Your task to perform on an android device: move an email to a new category in the gmail app Image 0: 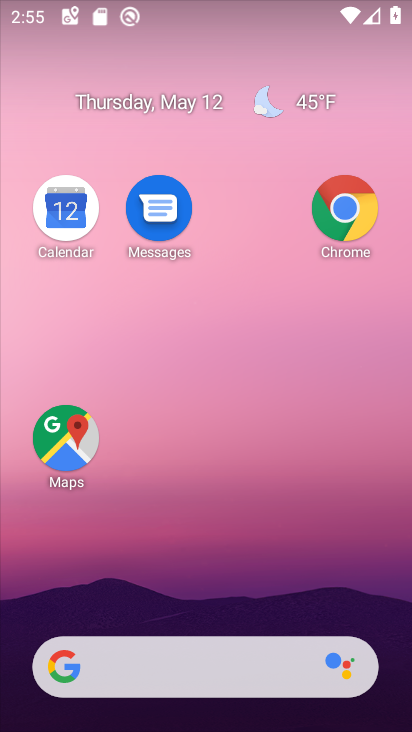
Step 0: drag from (150, 612) to (260, 217)
Your task to perform on an android device: move an email to a new category in the gmail app Image 1: 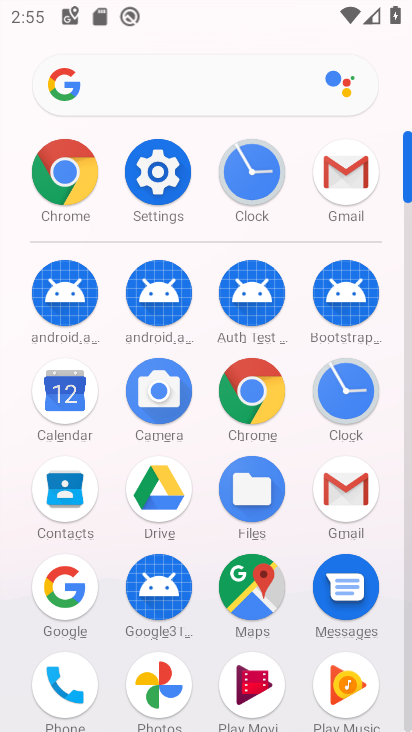
Step 1: click (346, 490)
Your task to perform on an android device: move an email to a new category in the gmail app Image 2: 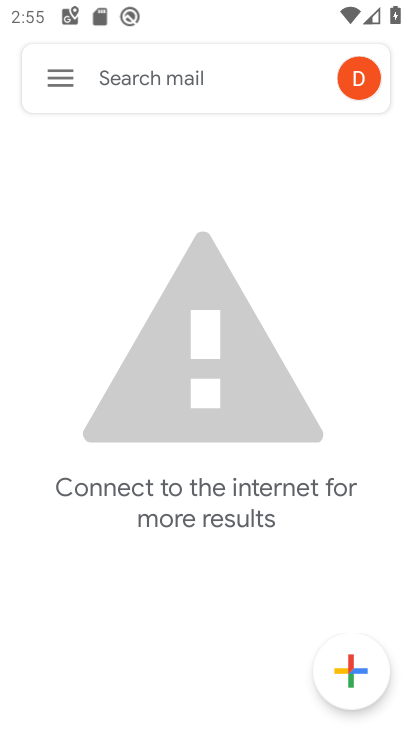
Step 2: drag from (198, 538) to (263, 310)
Your task to perform on an android device: move an email to a new category in the gmail app Image 3: 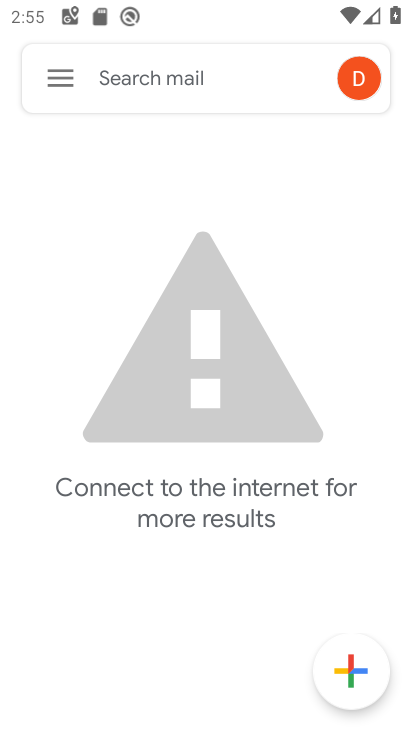
Step 3: click (74, 69)
Your task to perform on an android device: move an email to a new category in the gmail app Image 4: 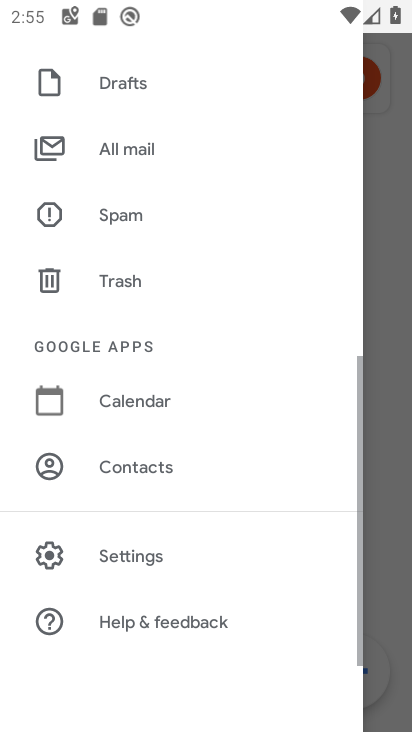
Step 4: click (135, 560)
Your task to perform on an android device: move an email to a new category in the gmail app Image 5: 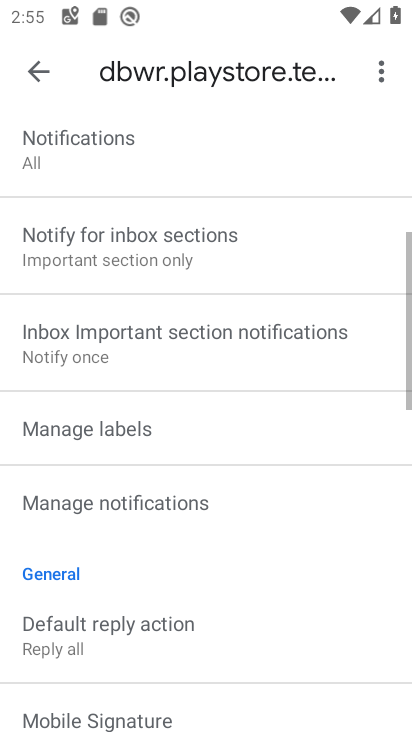
Step 5: drag from (123, 543) to (213, 194)
Your task to perform on an android device: move an email to a new category in the gmail app Image 6: 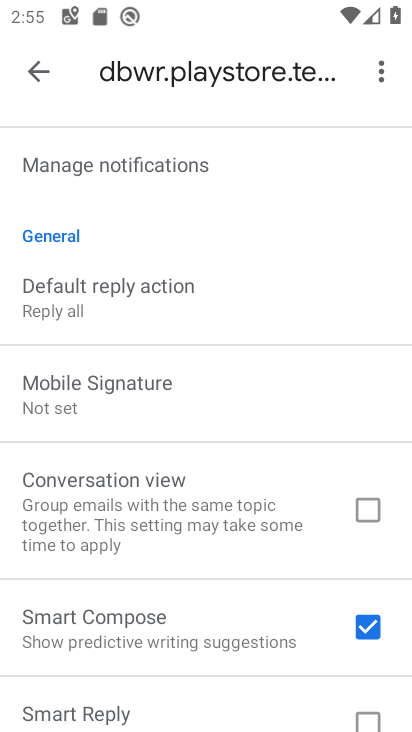
Step 6: drag from (211, 210) to (276, 471)
Your task to perform on an android device: move an email to a new category in the gmail app Image 7: 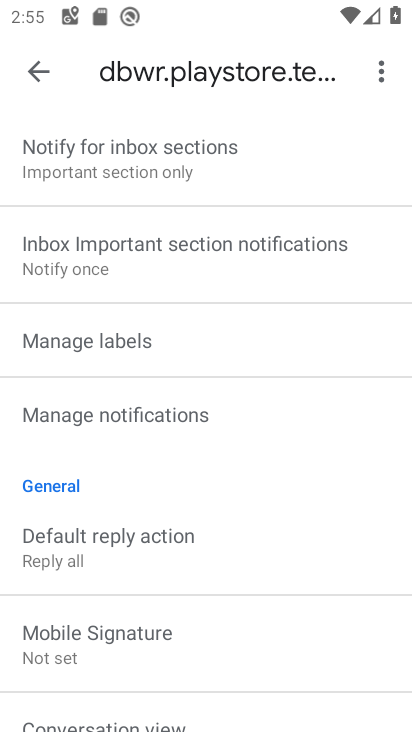
Step 7: click (41, 71)
Your task to perform on an android device: move an email to a new category in the gmail app Image 8: 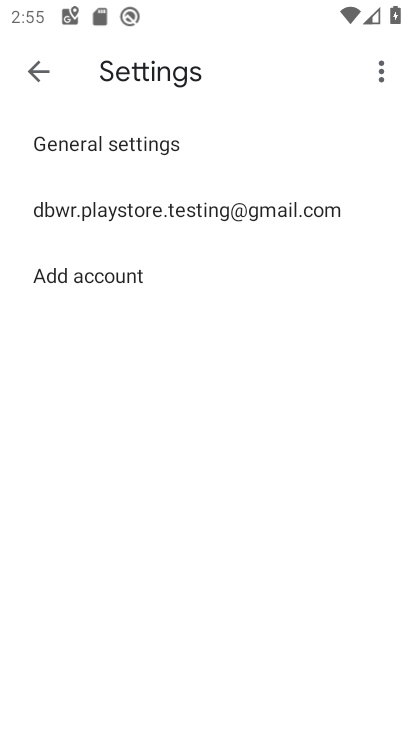
Step 8: click (67, 65)
Your task to perform on an android device: move an email to a new category in the gmail app Image 9: 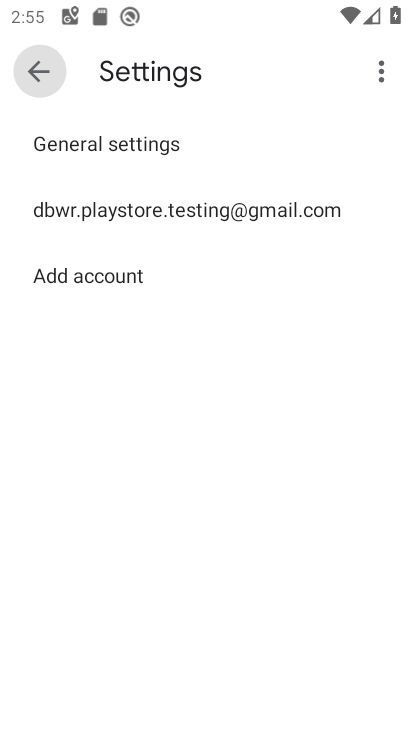
Step 9: click (64, 65)
Your task to perform on an android device: move an email to a new category in the gmail app Image 10: 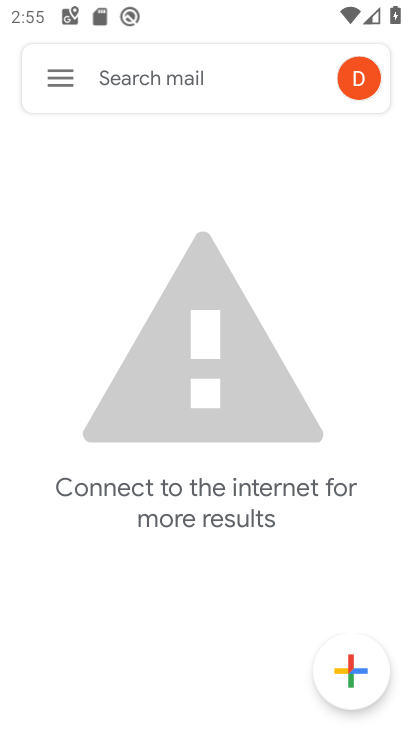
Step 10: task complete